Your task to perform on an android device: See recent photos Image 0: 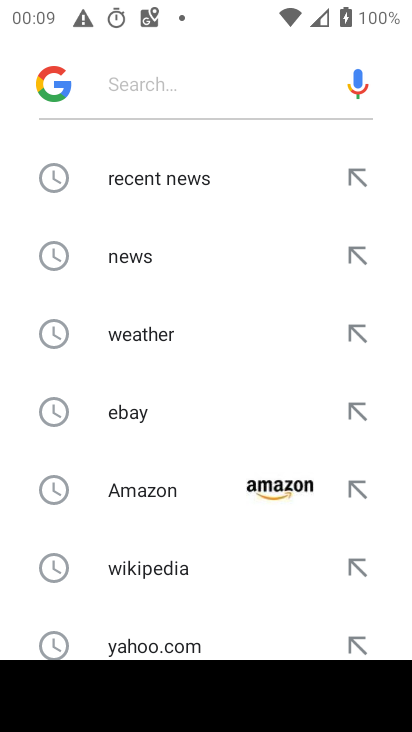
Step 0: press back button
Your task to perform on an android device: See recent photos Image 1: 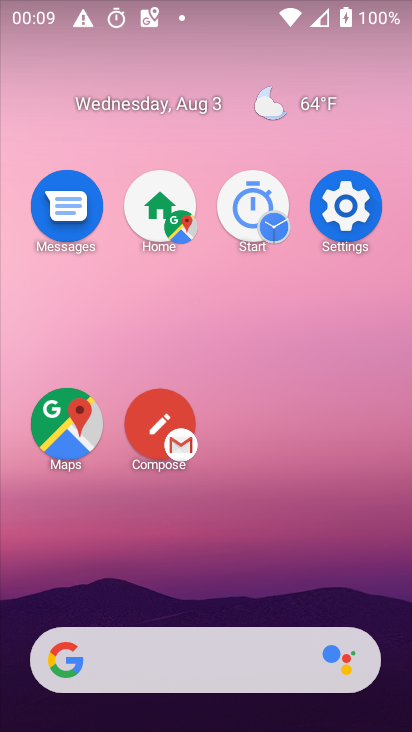
Step 1: drag from (299, 418) to (244, 227)
Your task to perform on an android device: See recent photos Image 2: 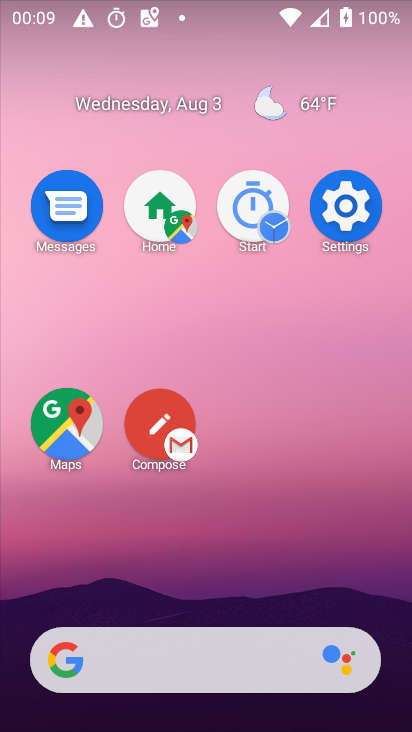
Step 2: drag from (297, 542) to (268, 215)
Your task to perform on an android device: See recent photos Image 3: 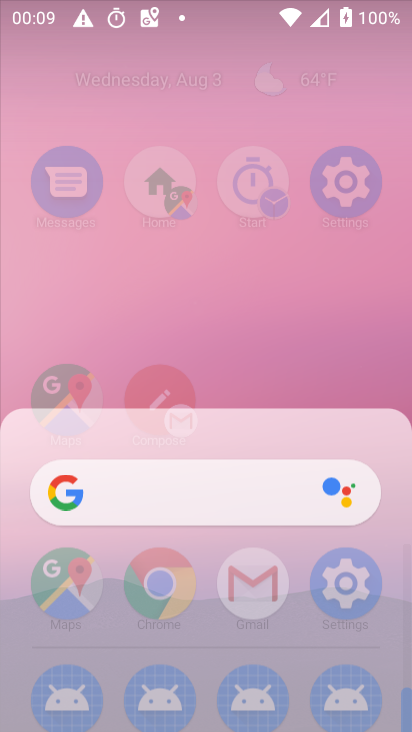
Step 3: click (315, 178)
Your task to perform on an android device: See recent photos Image 4: 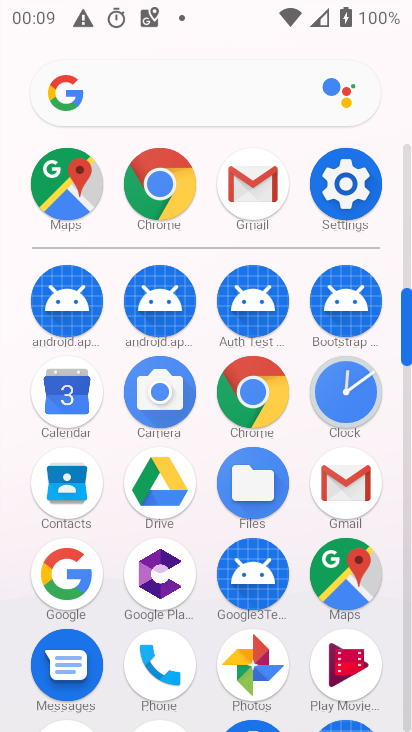
Step 4: click (254, 651)
Your task to perform on an android device: See recent photos Image 5: 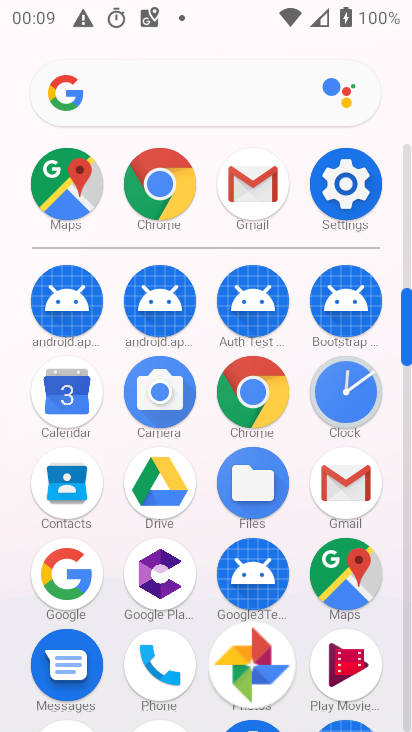
Step 5: click (254, 651)
Your task to perform on an android device: See recent photos Image 6: 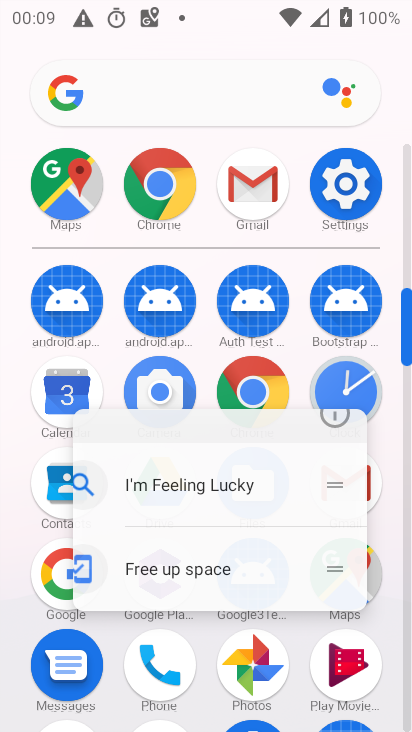
Step 6: click (257, 659)
Your task to perform on an android device: See recent photos Image 7: 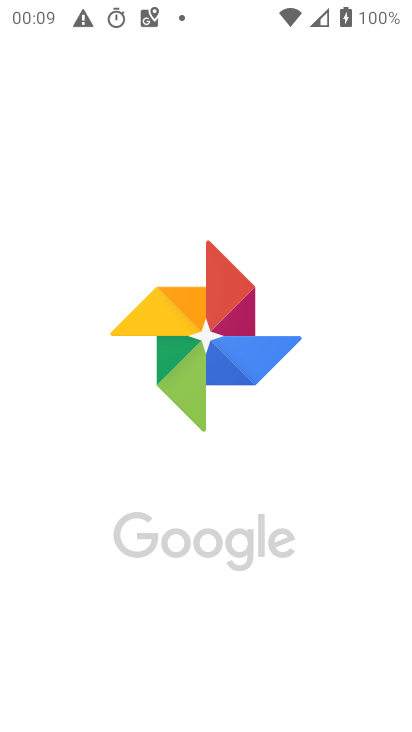
Step 7: click (257, 661)
Your task to perform on an android device: See recent photos Image 8: 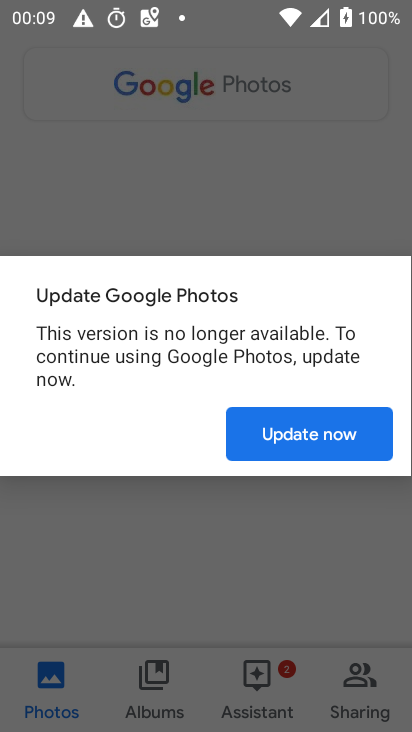
Step 8: click (70, 684)
Your task to perform on an android device: See recent photos Image 9: 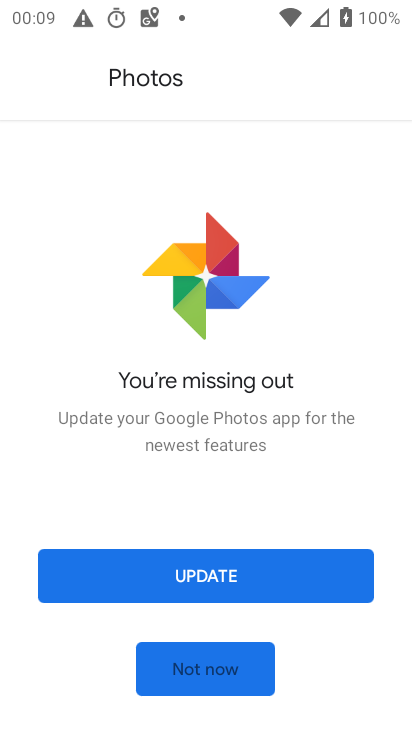
Step 9: click (57, 682)
Your task to perform on an android device: See recent photos Image 10: 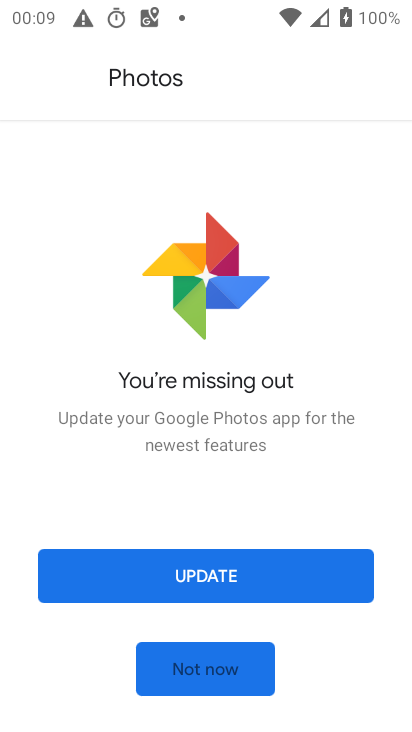
Step 10: task complete